Your task to perform on an android device: check the backup settings in the google photos Image 0: 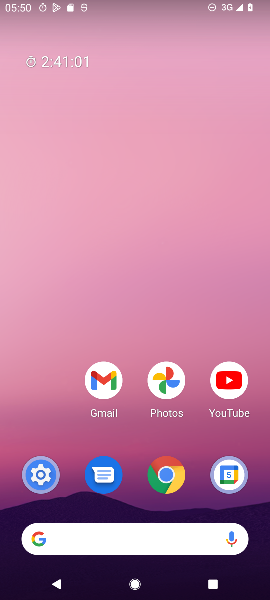
Step 0: drag from (64, 438) to (58, 247)
Your task to perform on an android device: check the backup settings in the google photos Image 1: 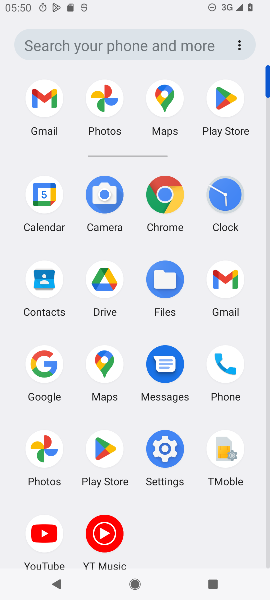
Step 1: click (38, 455)
Your task to perform on an android device: check the backup settings in the google photos Image 2: 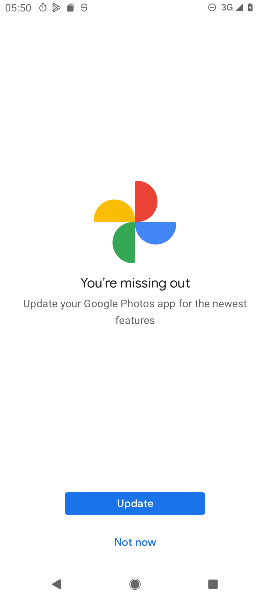
Step 2: click (126, 540)
Your task to perform on an android device: check the backup settings in the google photos Image 3: 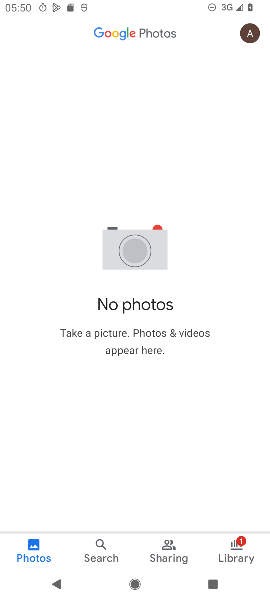
Step 3: click (243, 36)
Your task to perform on an android device: check the backup settings in the google photos Image 4: 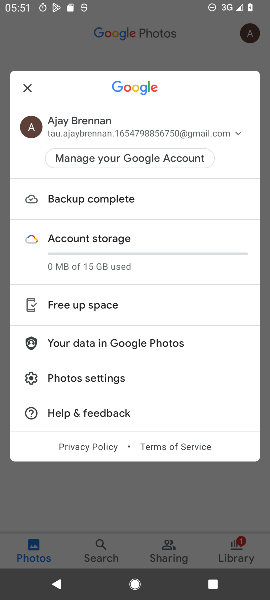
Step 4: click (135, 376)
Your task to perform on an android device: check the backup settings in the google photos Image 5: 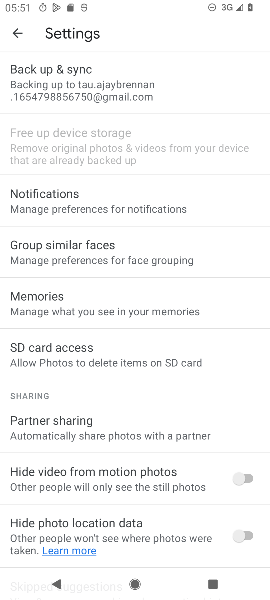
Step 5: drag from (201, 403) to (204, 295)
Your task to perform on an android device: check the backup settings in the google photos Image 6: 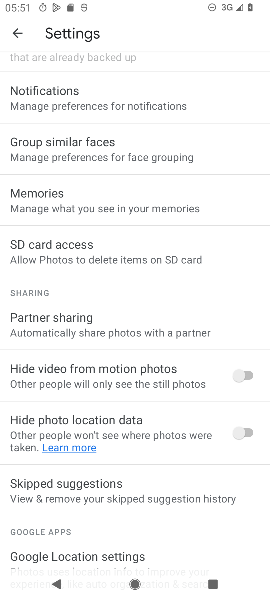
Step 6: drag from (200, 453) to (200, 320)
Your task to perform on an android device: check the backup settings in the google photos Image 7: 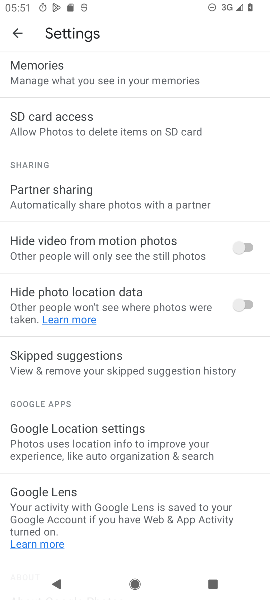
Step 7: drag from (205, 475) to (205, 378)
Your task to perform on an android device: check the backup settings in the google photos Image 8: 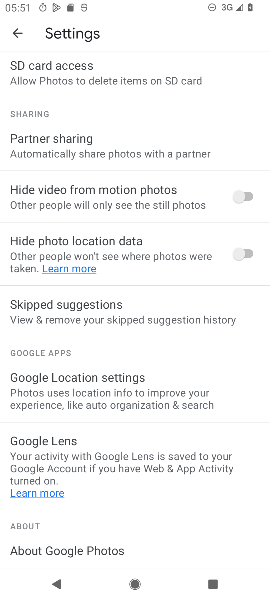
Step 8: drag from (209, 514) to (218, 349)
Your task to perform on an android device: check the backup settings in the google photos Image 9: 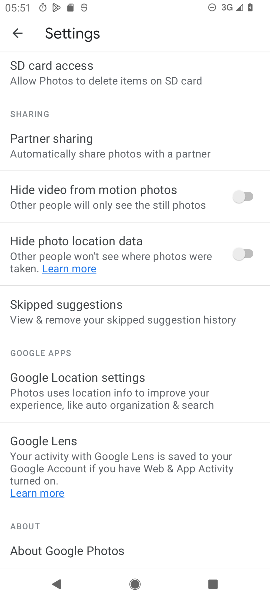
Step 9: drag from (207, 189) to (210, 298)
Your task to perform on an android device: check the backup settings in the google photos Image 10: 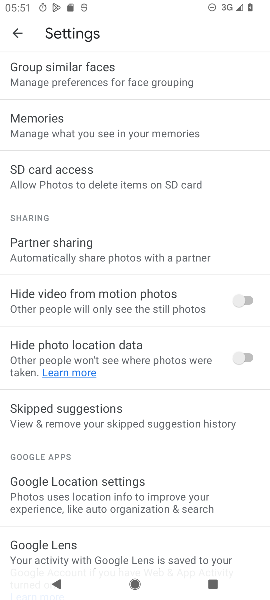
Step 10: drag from (203, 109) to (204, 234)
Your task to perform on an android device: check the backup settings in the google photos Image 11: 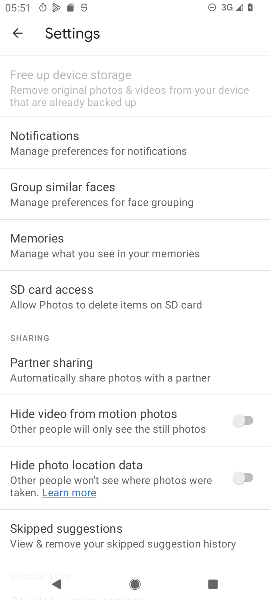
Step 11: drag from (200, 163) to (200, 270)
Your task to perform on an android device: check the backup settings in the google photos Image 12: 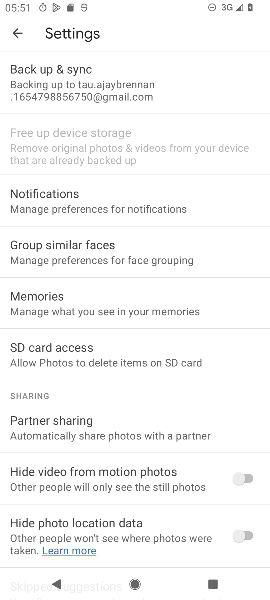
Step 12: click (115, 84)
Your task to perform on an android device: check the backup settings in the google photos Image 13: 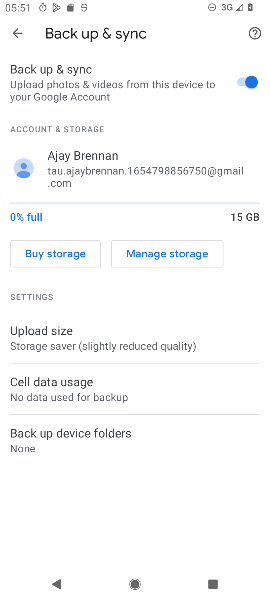
Step 13: task complete